Your task to perform on an android device: open app "Spotify: Music and Podcasts" (install if not already installed) Image 0: 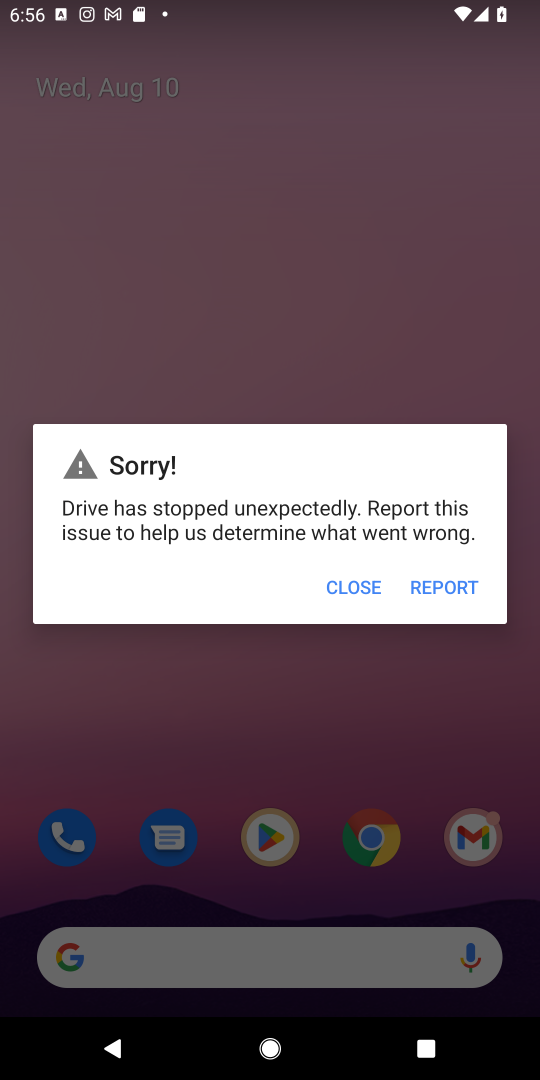
Step 0: press home button
Your task to perform on an android device: open app "Spotify: Music and Podcasts" (install if not already installed) Image 1: 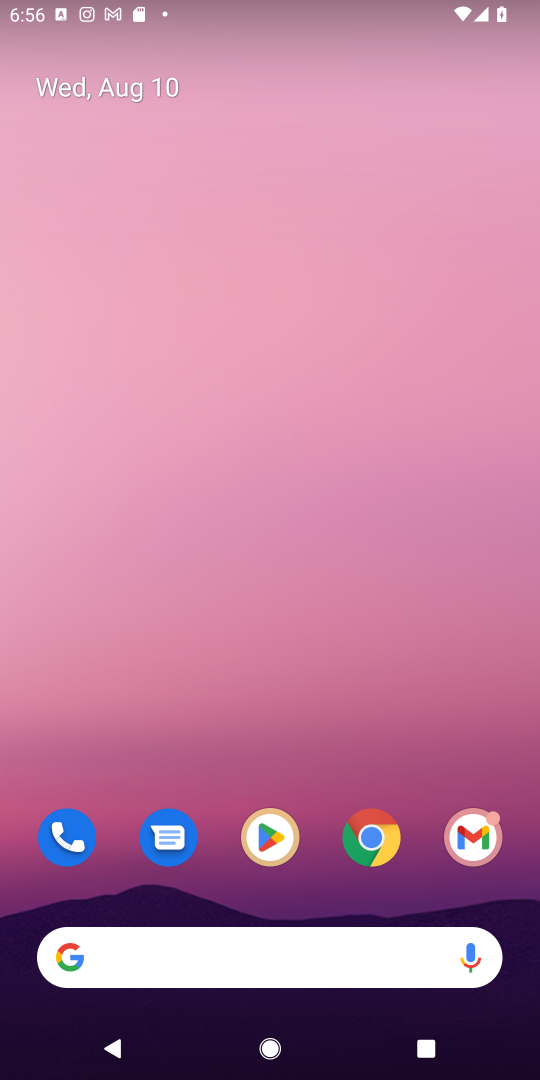
Step 1: click (269, 845)
Your task to perform on an android device: open app "Spotify: Music and Podcasts" (install if not already installed) Image 2: 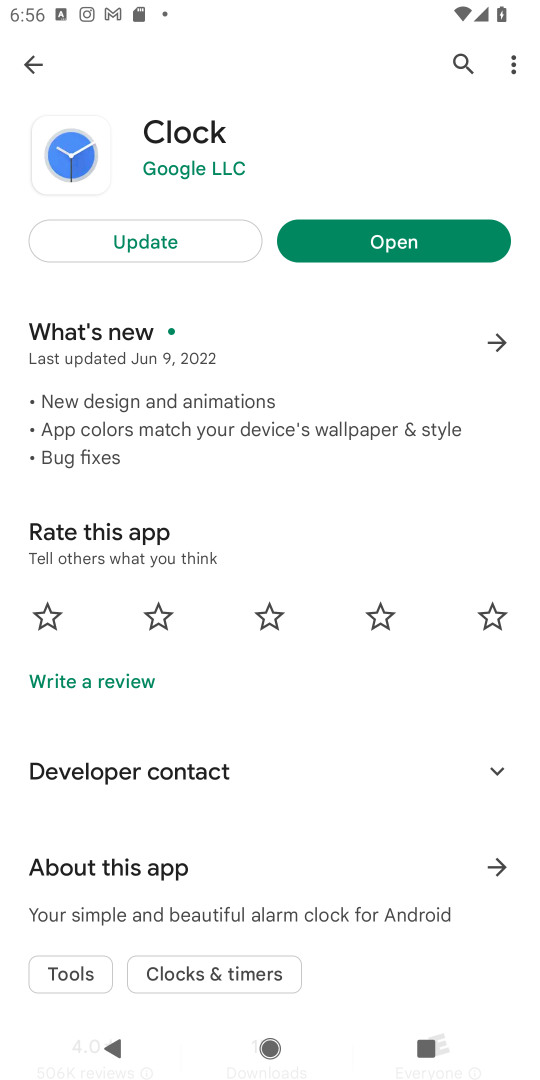
Step 2: click (462, 57)
Your task to perform on an android device: open app "Spotify: Music and Podcasts" (install if not already installed) Image 3: 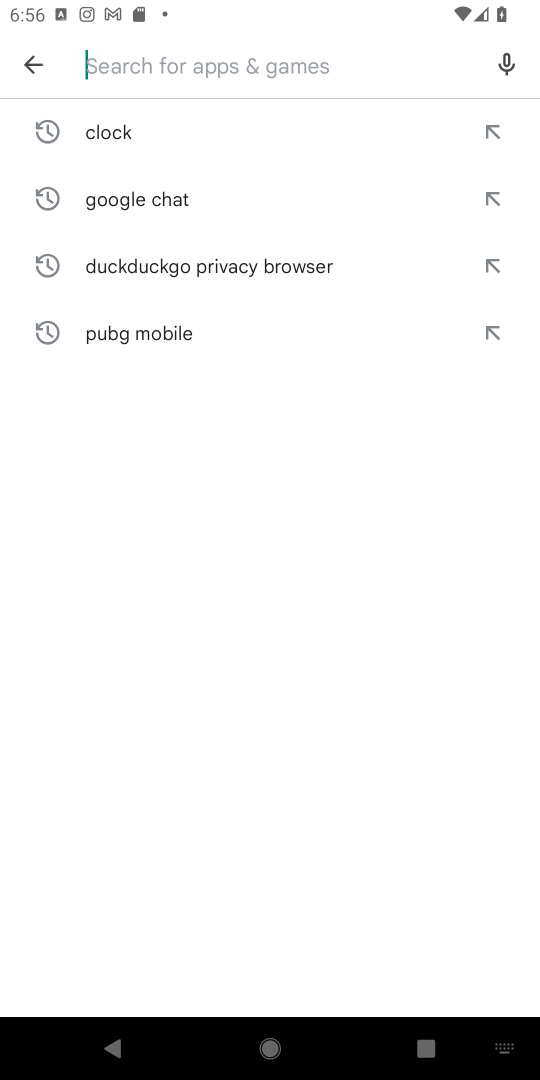
Step 3: type "Spotify: Music and Podcasts"
Your task to perform on an android device: open app "Spotify: Music and Podcasts" (install if not already installed) Image 4: 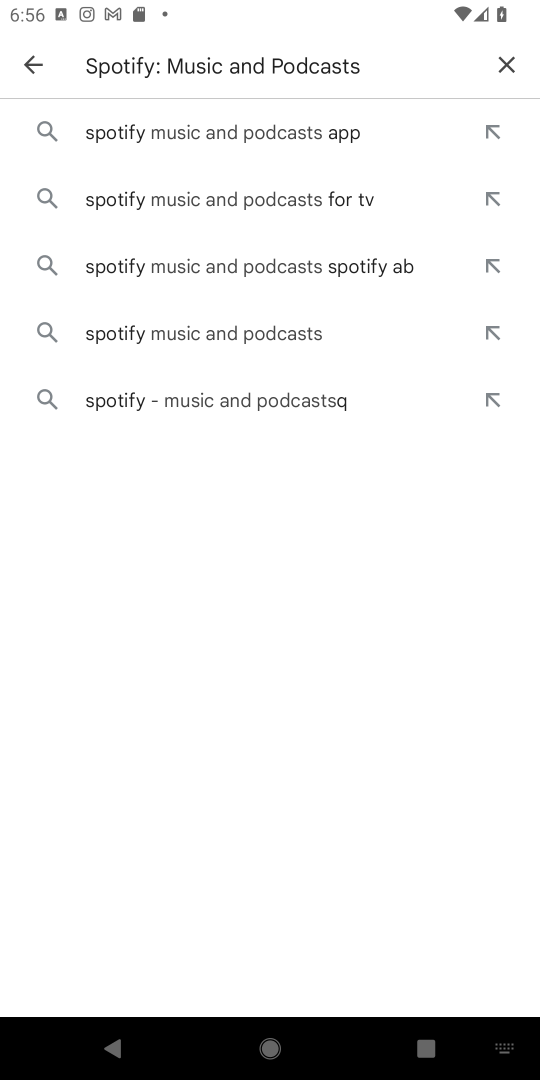
Step 4: click (257, 137)
Your task to perform on an android device: open app "Spotify: Music and Podcasts" (install if not already installed) Image 5: 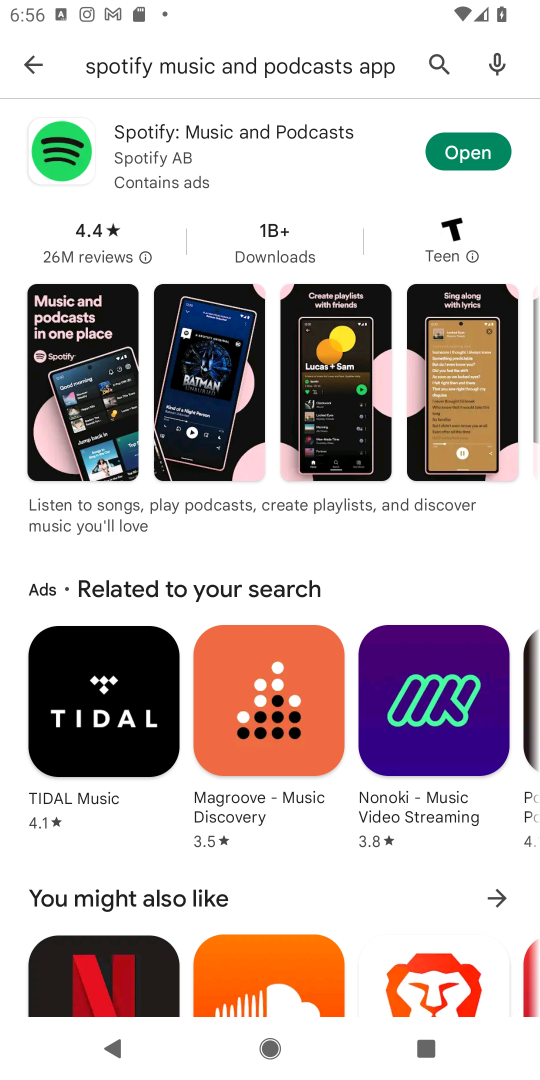
Step 5: click (447, 144)
Your task to perform on an android device: open app "Spotify: Music and Podcasts" (install if not already installed) Image 6: 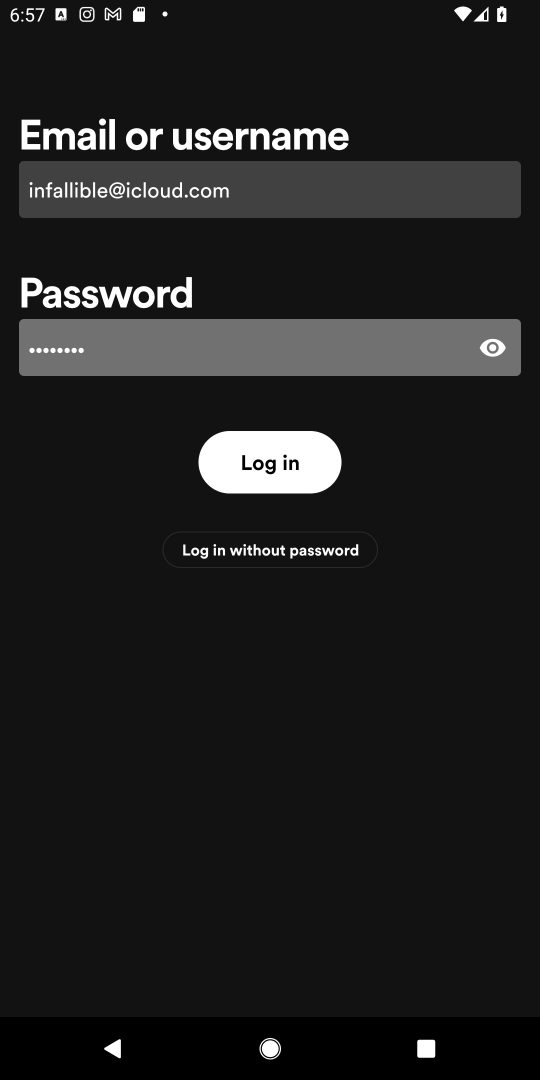
Step 6: task complete